Your task to perform on an android device: turn off smart reply in the gmail app Image 0: 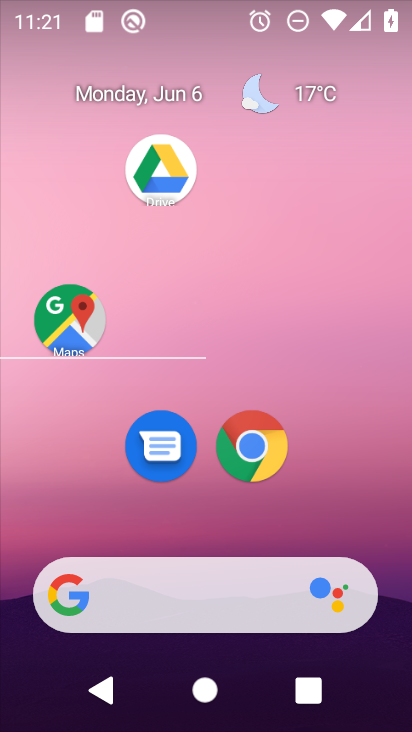
Step 0: drag from (190, 518) to (131, 125)
Your task to perform on an android device: turn off smart reply in the gmail app Image 1: 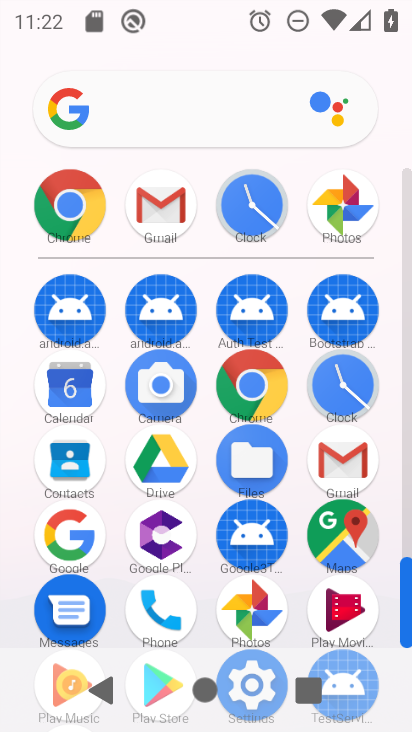
Step 1: click (177, 195)
Your task to perform on an android device: turn off smart reply in the gmail app Image 2: 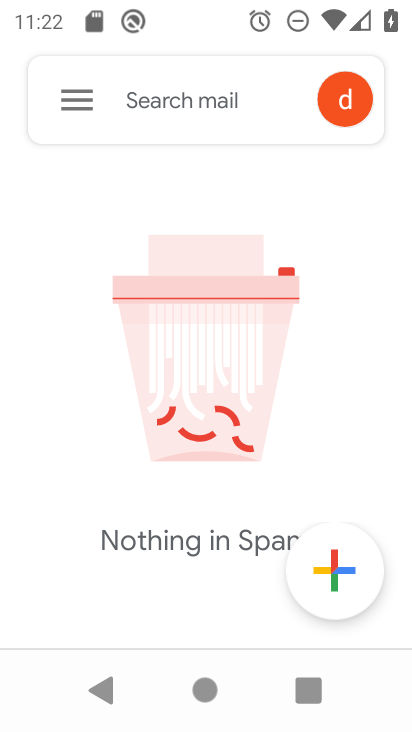
Step 2: click (79, 89)
Your task to perform on an android device: turn off smart reply in the gmail app Image 3: 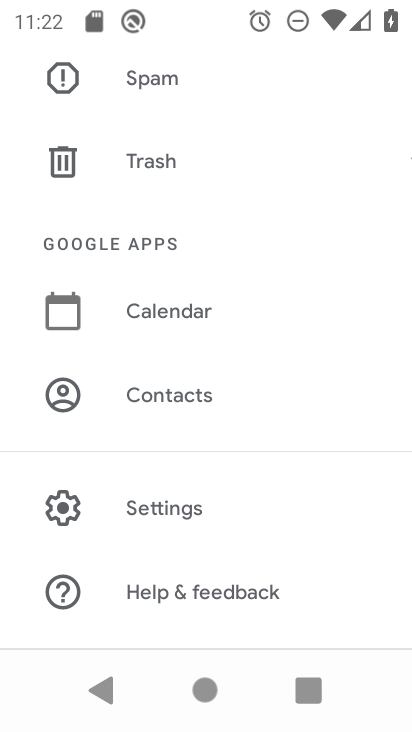
Step 3: click (152, 513)
Your task to perform on an android device: turn off smart reply in the gmail app Image 4: 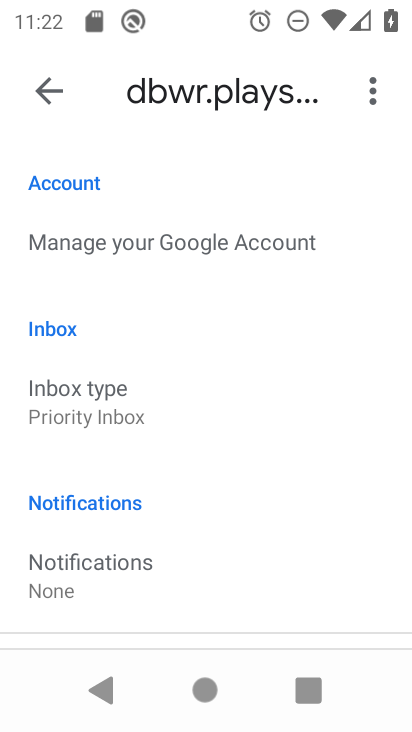
Step 4: drag from (131, 616) to (259, 130)
Your task to perform on an android device: turn off smart reply in the gmail app Image 5: 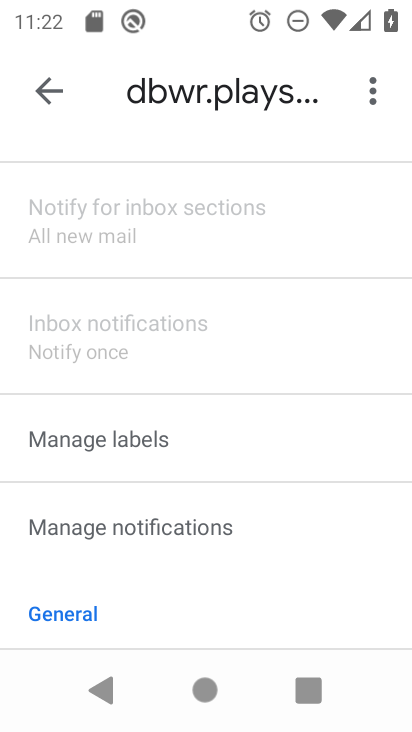
Step 5: click (269, 66)
Your task to perform on an android device: turn off smart reply in the gmail app Image 6: 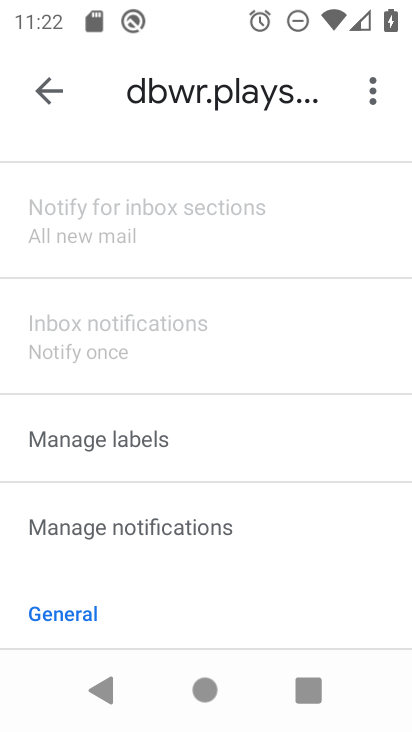
Step 6: drag from (212, 636) to (214, 251)
Your task to perform on an android device: turn off smart reply in the gmail app Image 7: 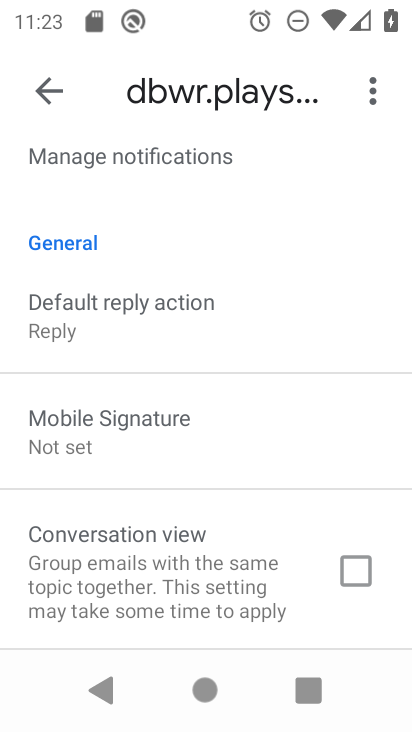
Step 7: drag from (123, 572) to (181, 290)
Your task to perform on an android device: turn off smart reply in the gmail app Image 8: 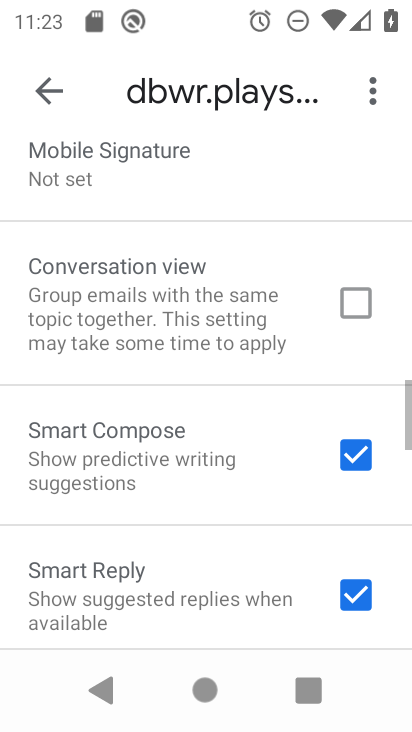
Step 8: drag from (137, 579) to (177, 177)
Your task to perform on an android device: turn off smart reply in the gmail app Image 9: 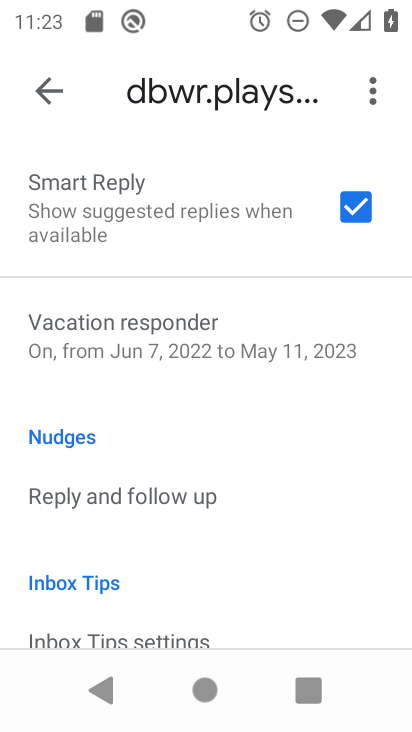
Step 9: drag from (155, 590) to (185, 329)
Your task to perform on an android device: turn off smart reply in the gmail app Image 10: 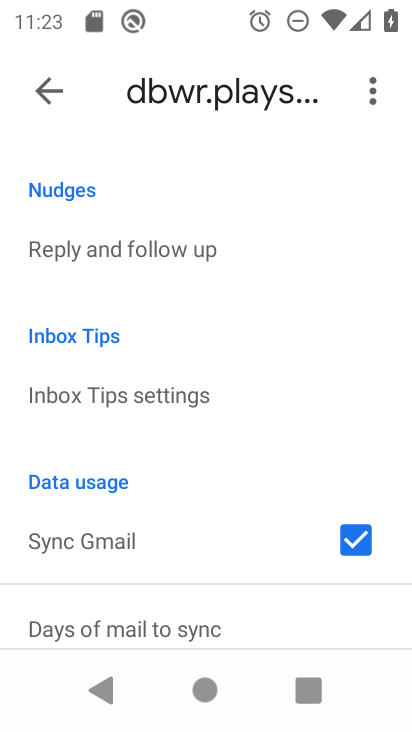
Step 10: drag from (83, 609) to (243, 106)
Your task to perform on an android device: turn off smart reply in the gmail app Image 11: 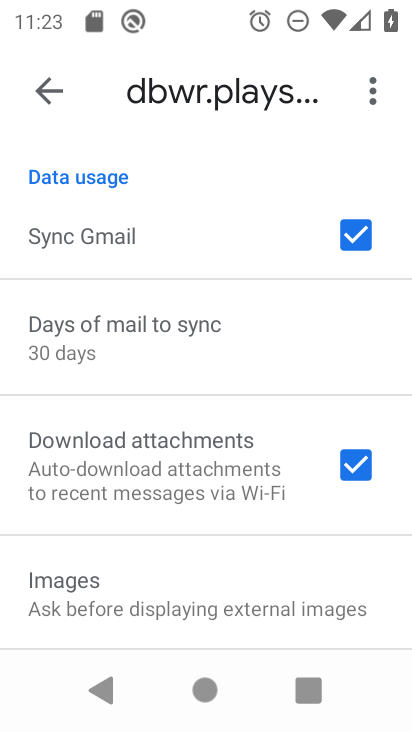
Step 11: drag from (140, 546) to (207, 191)
Your task to perform on an android device: turn off smart reply in the gmail app Image 12: 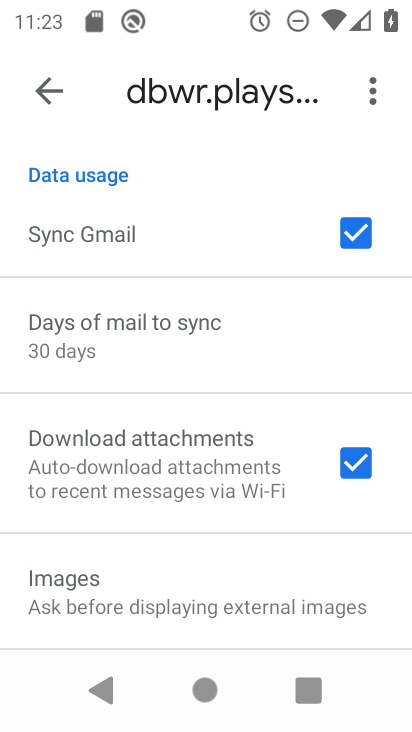
Step 12: drag from (117, 587) to (156, 111)
Your task to perform on an android device: turn off smart reply in the gmail app Image 13: 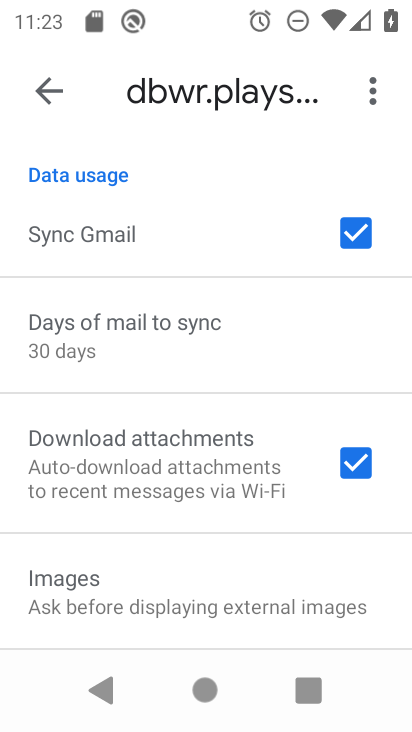
Step 13: drag from (150, 557) to (182, 55)
Your task to perform on an android device: turn off smart reply in the gmail app Image 14: 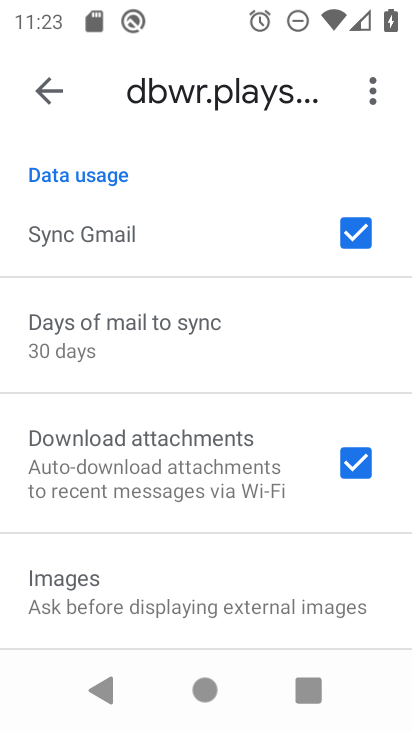
Step 14: drag from (121, 438) to (145, 120)
Your task to perform on an android device: turn off smart reply in the gmail app Image 15: 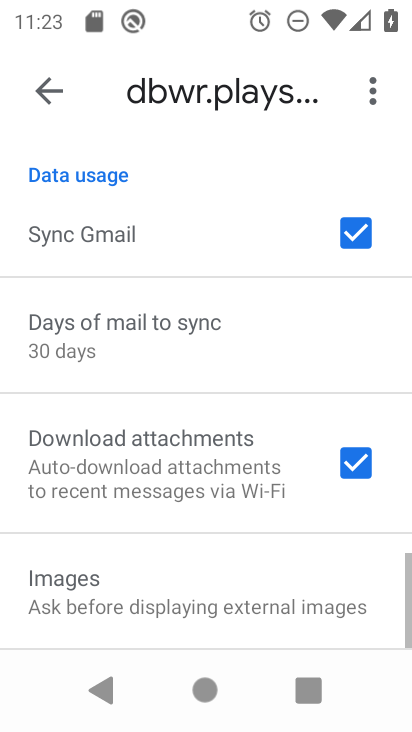
Step 15: drag from (150, 617) to (217, 217)
Your task to perform on an android device: turn off smart reply in the gmail app Image 16: 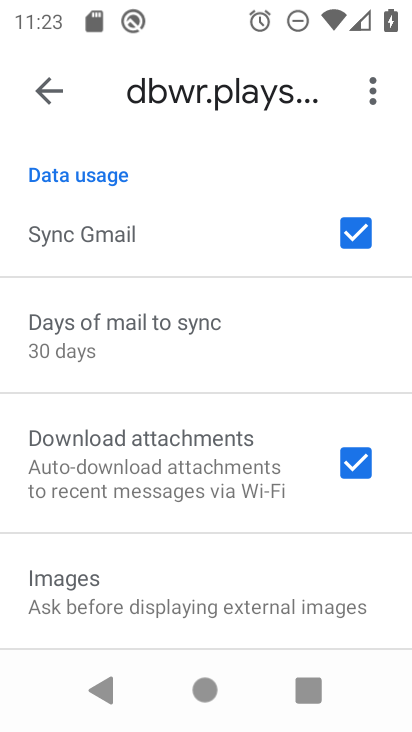
Step 16: drag from (165, 573) to (163, 351)
Your task to perform on an android device: turn off smart reply in the gmail app Image 17: 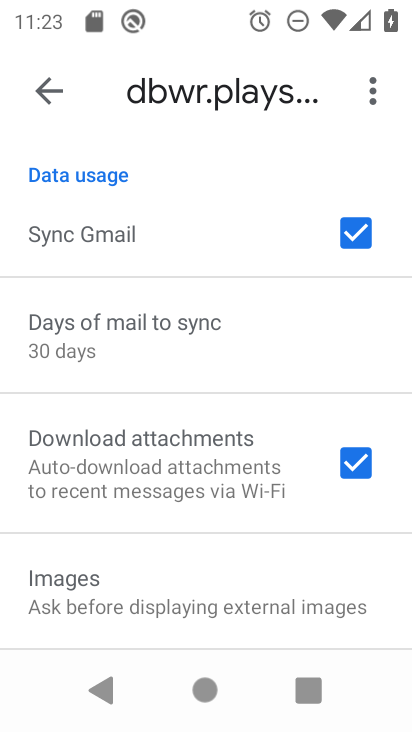
Step 17: drag from (114, 635) to (147, 139)
Your task to perform on an android device: turn off smart reply in the gmail app Image 18: 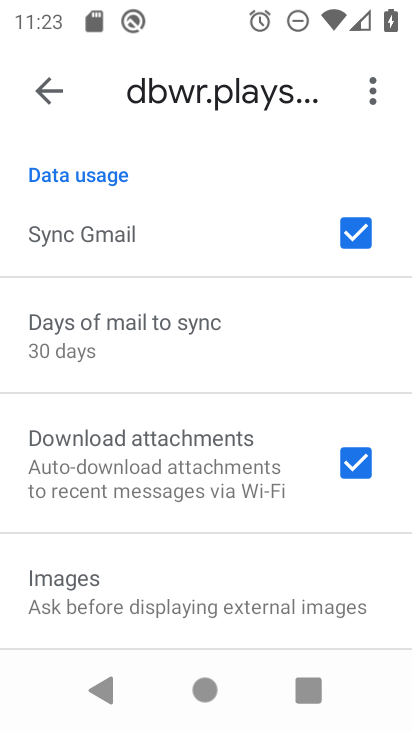
Step 18: drag from (203, 210) to (221, 161)
Your task to perform on an android device: turn off smart reply in the gmail app Image 19: 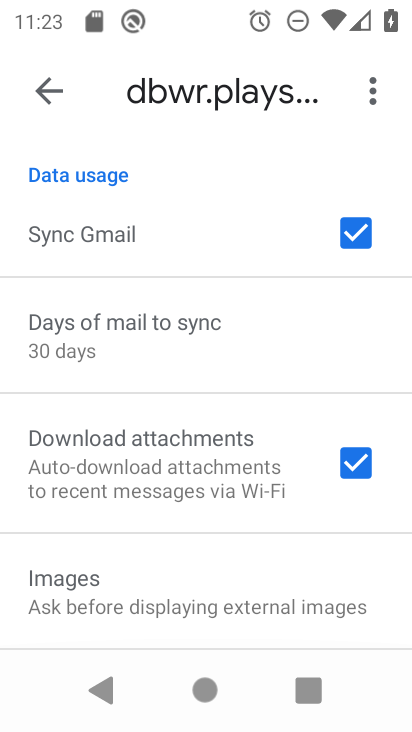
Step 19: drag from (116, 591) to (188, 213)
Your task to perform on an android device: turn off smart reply in the gmail app Image 20: 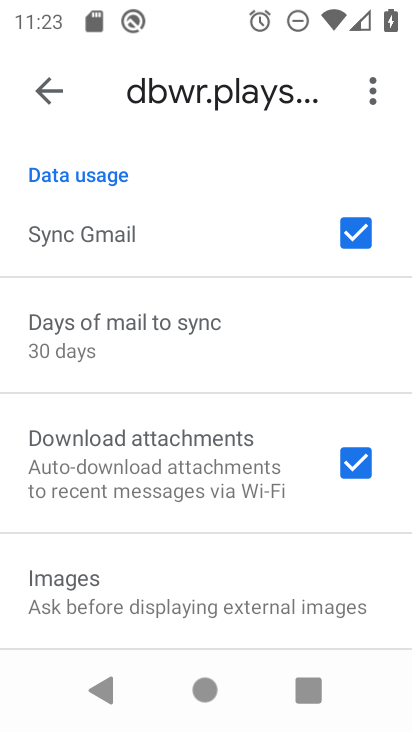
Step 20: drag from (217, 650) to (261, 201)
Your task to perform on an android device: turn off smart reply in the gmail app Image 21: 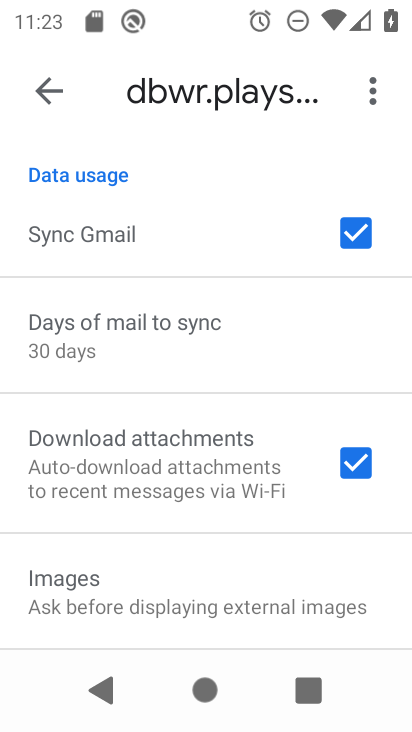
Step 21: drag from (142, 604) to (182, 156)
Your task to perform on an android device: turn off smart reply in the gmail app Image 22: 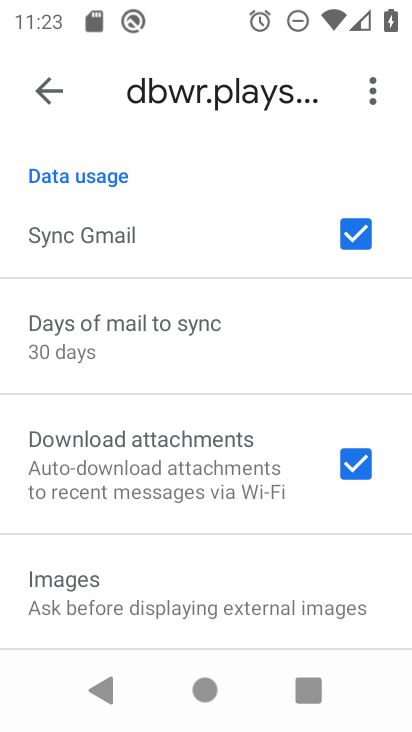
Step 22: drag from (160, 255) to (157, 594)
Your task to perform on an android device: turn off smart reply in the gmail app Image 23: 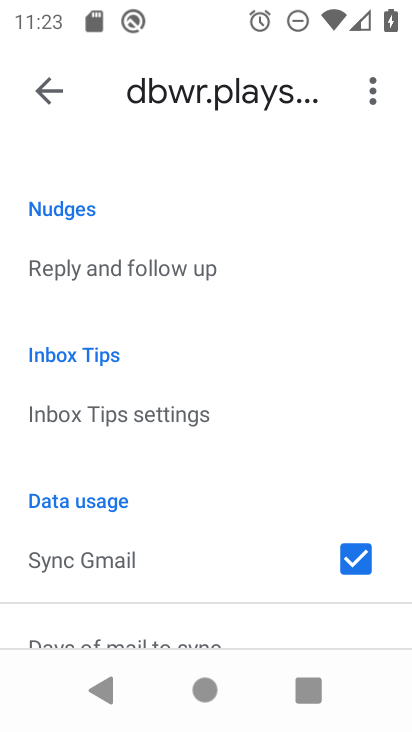
Step 23: drag from (111, 528) to (137, 243)
Your task to perform on an android device: turn off smart reply in the gmail app Image 24: 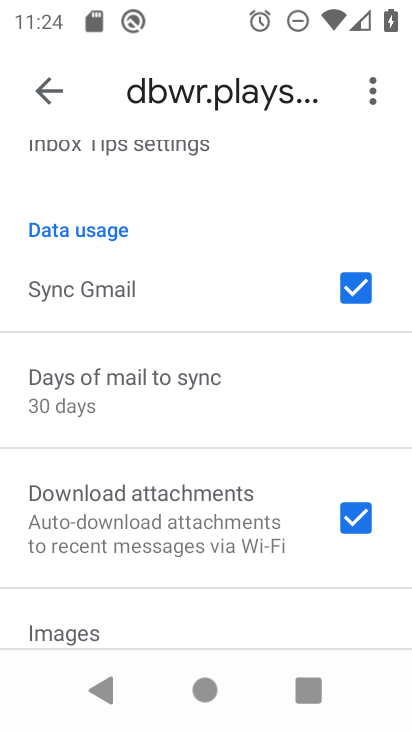
Step 24: drag from (148, 586) to (173, 205)
Your task to perform on an android device: turn off smart reply in the gmail app Image 25: 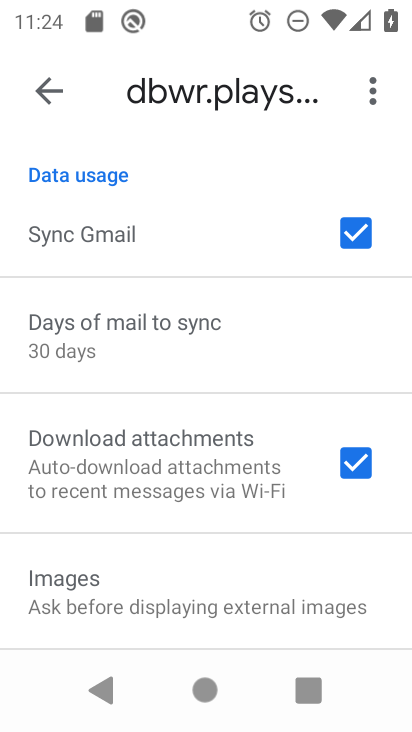
Step 25: drag from (70, 553) to (137, 37)
Your task to perform on an android device: turn off smart reply in the gmail app Image 26: 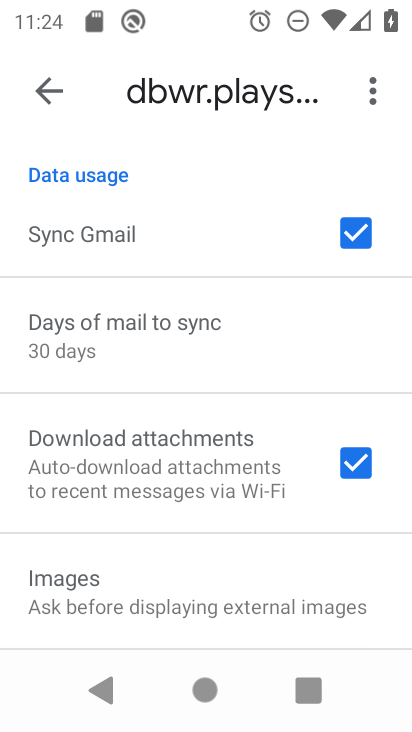
Step 26: drag from (179, 527) to (176, 159)
Your task to perform on an android device: turn off smart reply in the gmail app Image 27: 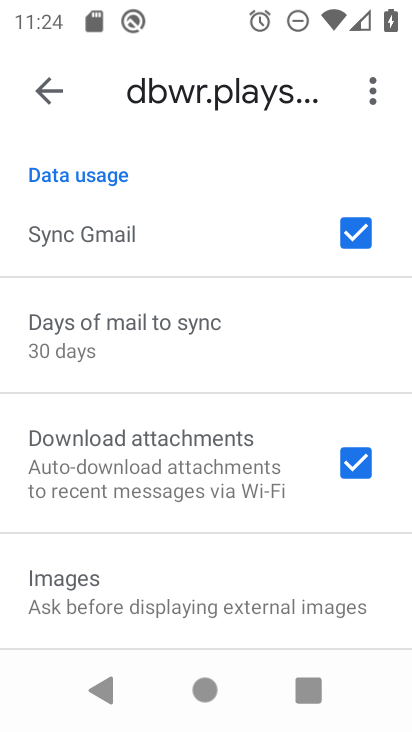
Step 27: drag from (122, 547) to (140, 100)
Your task to perform on an android device: turn off smart reply in the gmail app Image 28: 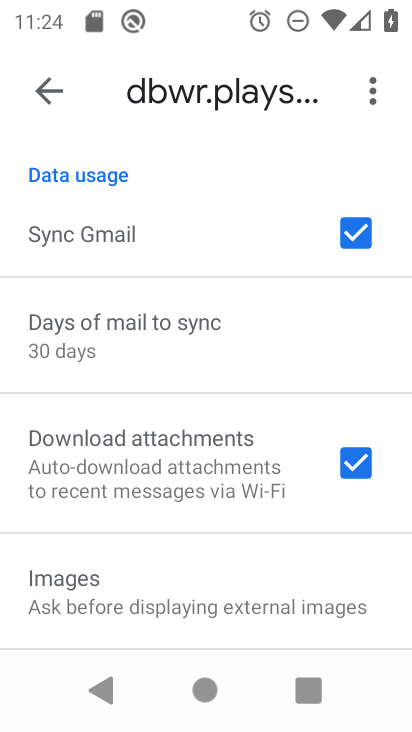
Step 28: drag from (127, 599) to (163, 197)
Your task to perform on an android device: turn off smart reply in the gmail app Image 29: 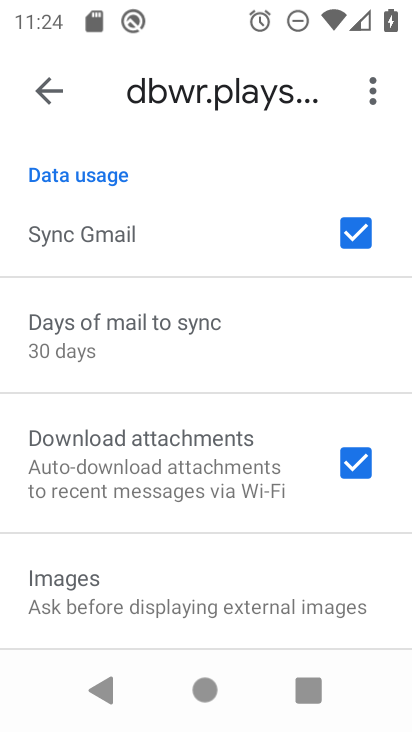
Step 29: drag from (119, 628) to (162, 345)
Your task to perform on an android device: turn off smart reply in the gmail app Image 30: 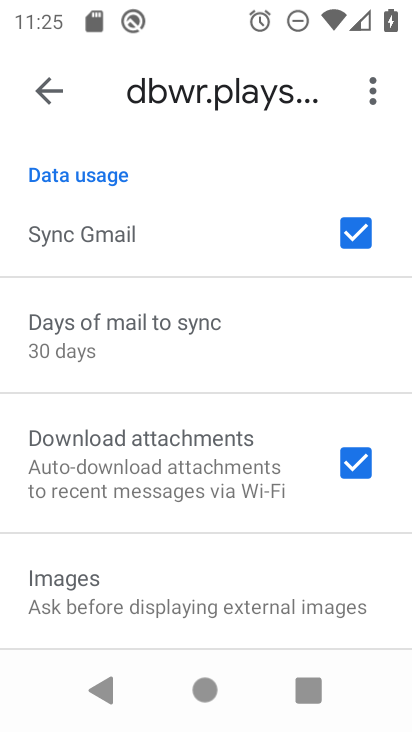
Step 30: drag from (127, 521) to (117, 93)
Your task to perform on an android device: turn off smart reply in the gmail app Image 31: 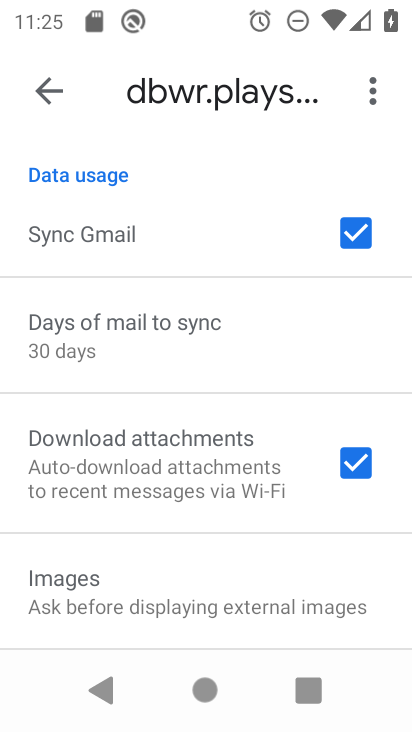
Step 31: drag from (233, 582) to (205, 91)
Your task to perform on an android device: turn off smart reply in the gmail app Image 32: 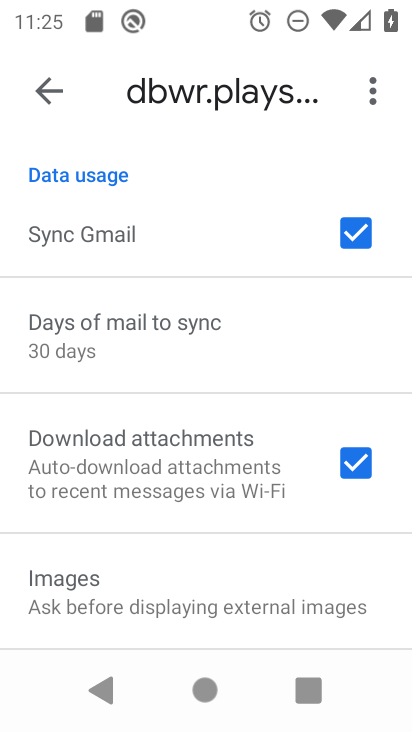
Step 32: drag from (196, 202) to (206, 507)
Your task to perform on an android device: turn off smart reply in the gmail app Image 33: 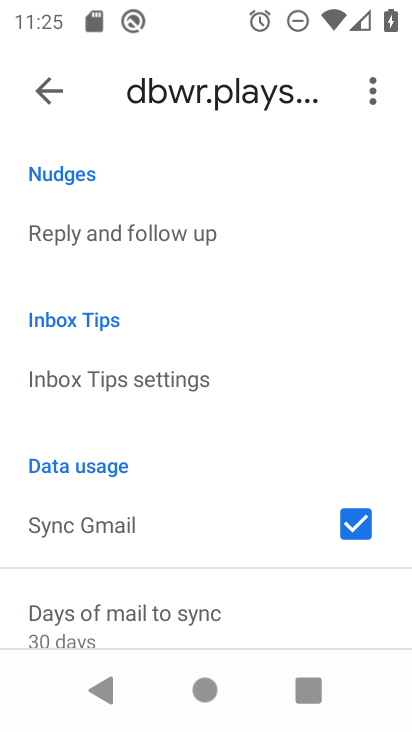
Step 33: drag from (155, 170) to (177, 593)
Your task to perform on an android device: turn off smart reply in the gmail app Image 34: 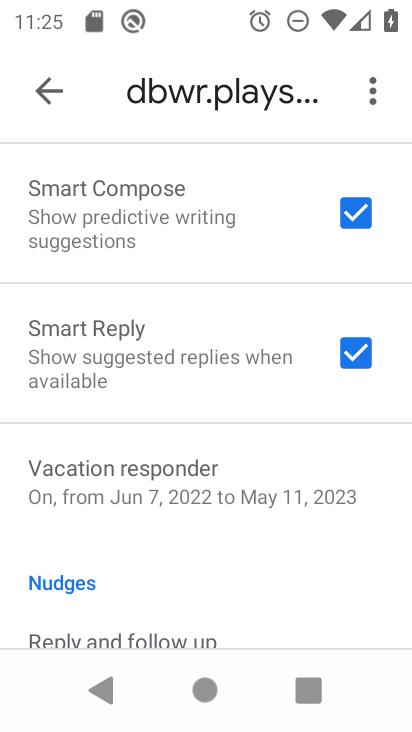
Step 34: drag from (124, 138) to (170, 557)
Your task to perform on an android device: turn off smart reply in the gmail app Image 35: 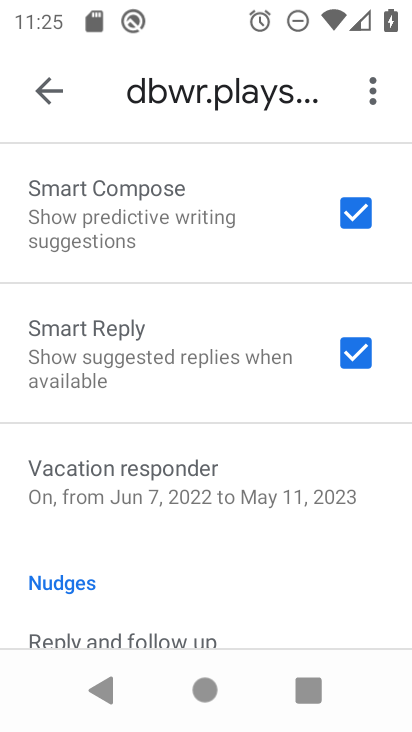
Step 35: click (359, 364)
Your task to perform on an android device: turn off smart reply in the gmail app Image 36: 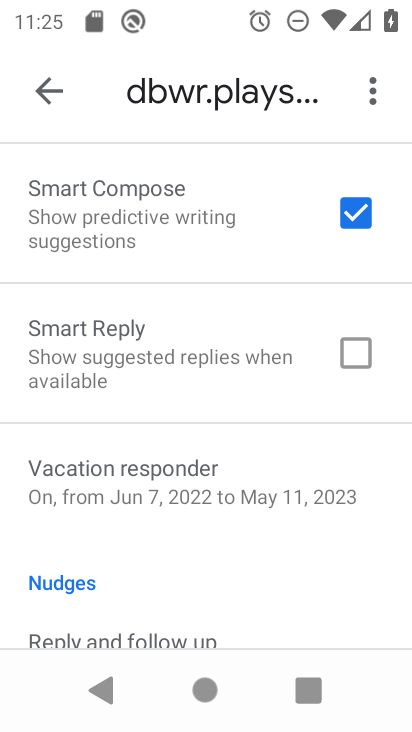
Step 36: task complete